Your task to perform on an android device: allow notifications from all sites in the chrome app Image 0: 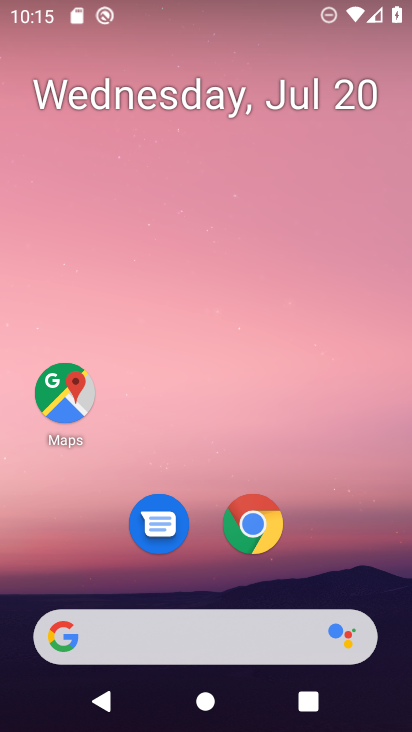
Step 0: press home button
Your task to perform on an android device: allow notifications from all sites in the chrome app Image 1: 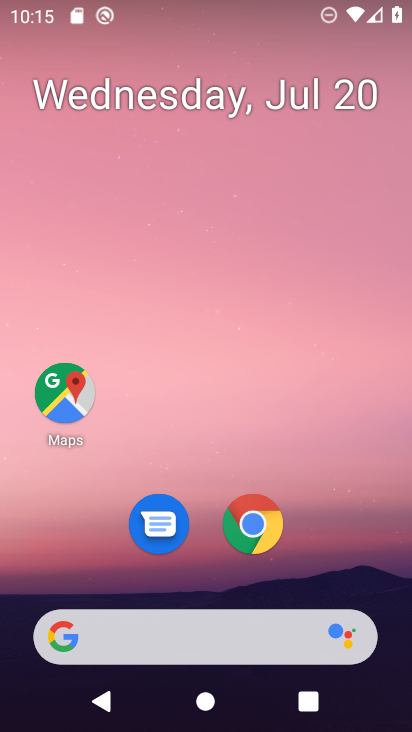
Step 1: click (247, 531)
Your task to perform on an android device: allow notifications from all sites in the chrome app Image 2: 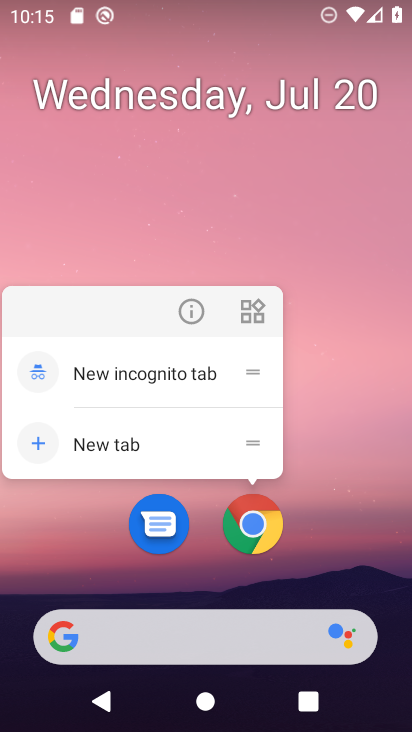
Step 2: click (257, 523)
Your task to perform on an android device: allow notifications from all sites in the chrome app Image 3: 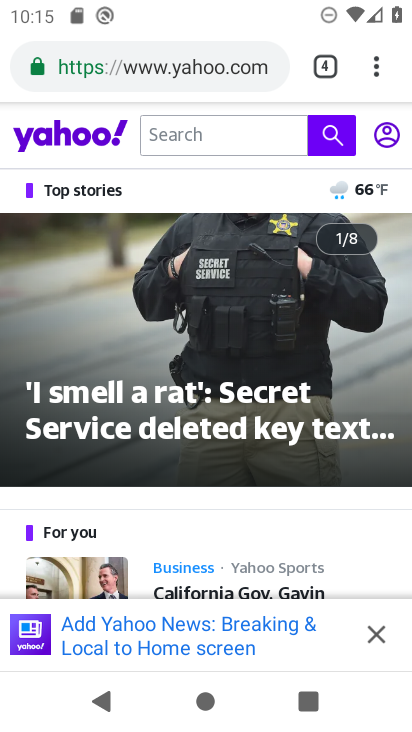
Step 3: drag from (377, 69) to (229, 516)
Your task to perform on an android device: allow notifications from all sites in the chrome app Image 4: 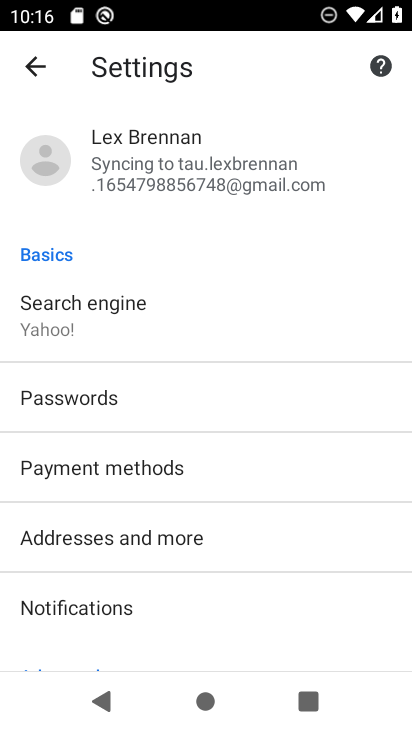
Step 4: drag from (216, 587) to (343, 114)
Your task to perform on an android device: allow notifications from all sites in the chrome app Image 5: 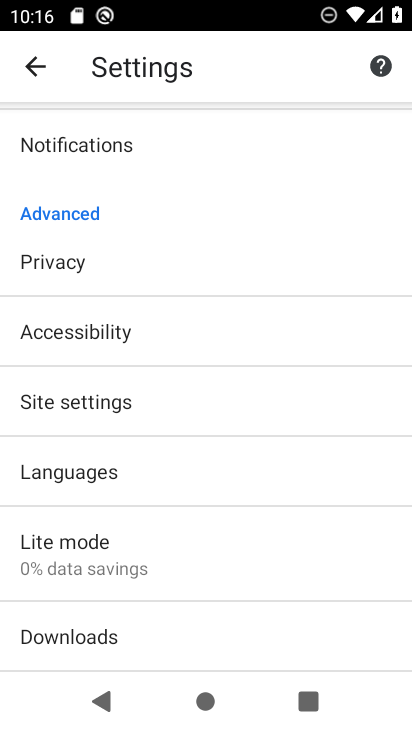
Step 5: click (103, 396)
Your task to perform on an android device: allow notifications from all sites in the chrome app Image 6: 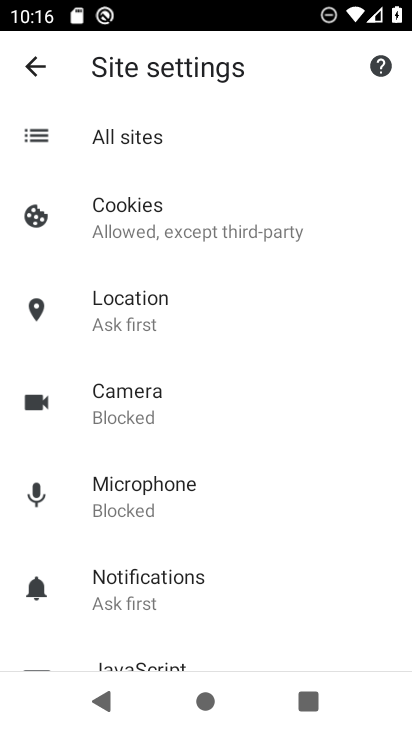
Step 6: click (148, 590)
Your task to perform on an android device: allow notifications from all sites in the chrome app Image 7: 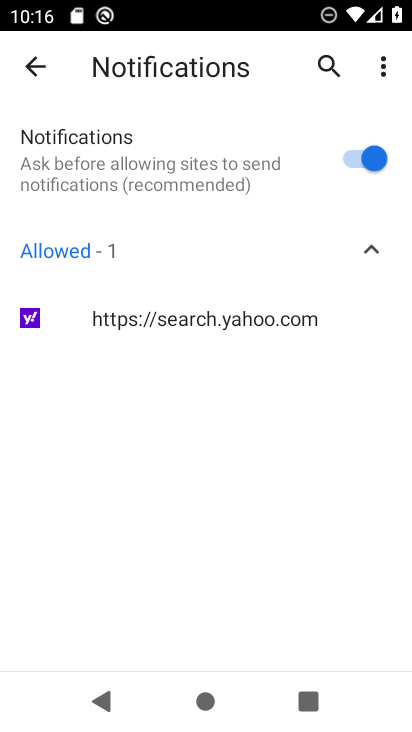
Step 7: task complete